Your task to perform on an android device: Go to network settings Image 0: 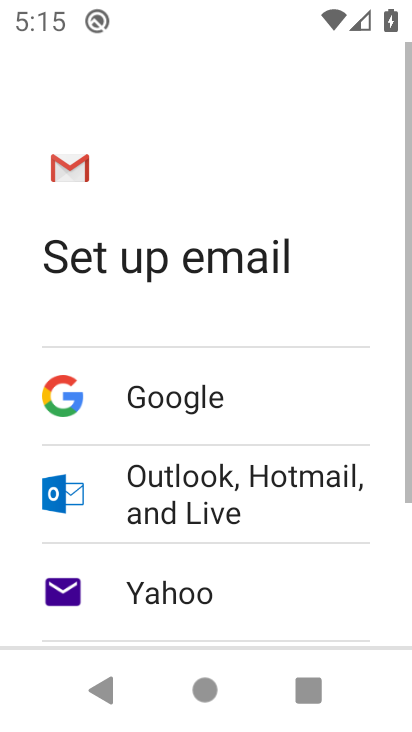
Step 0: press back button
Your task to perform on an android device: Go to network settings Image 1: 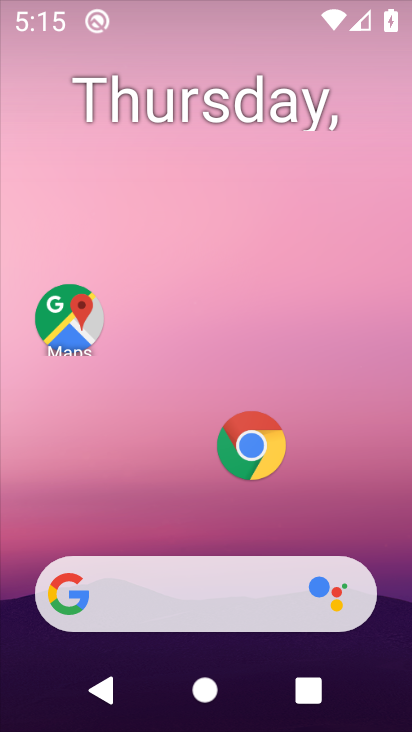
Step 1: drag from (273, 598) to (214, 148)
Your task to perform on an android device: Go to network settings Image 2: 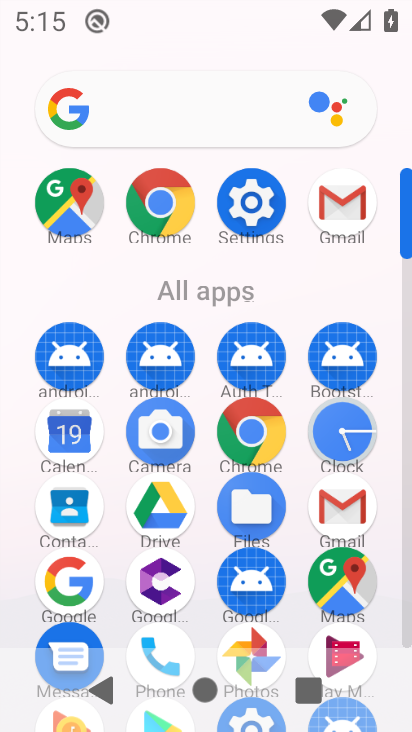
Step 2: click (249, 209)
Your task to perform on an android device: Go to network settings Image 3: 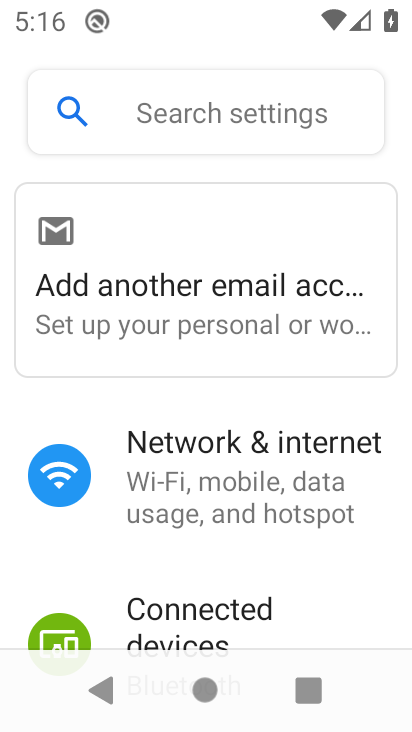
Step 3: click (224, 479)
Your task to perform on an android device: Go to network settings Image 4: 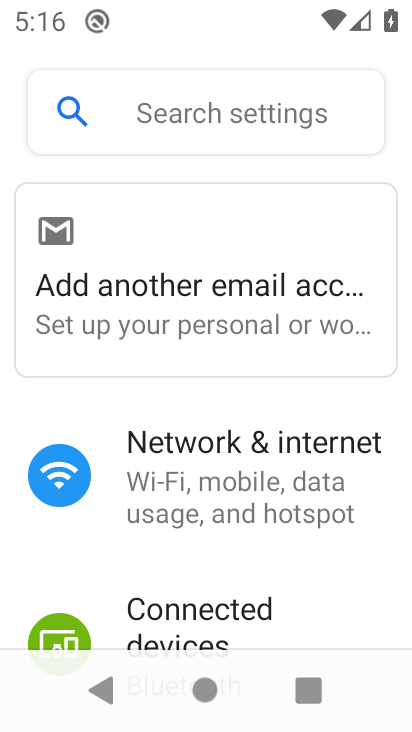
Step 4: click (229, 479)
Your task to perform on an android device: Go to network settings Image 5: 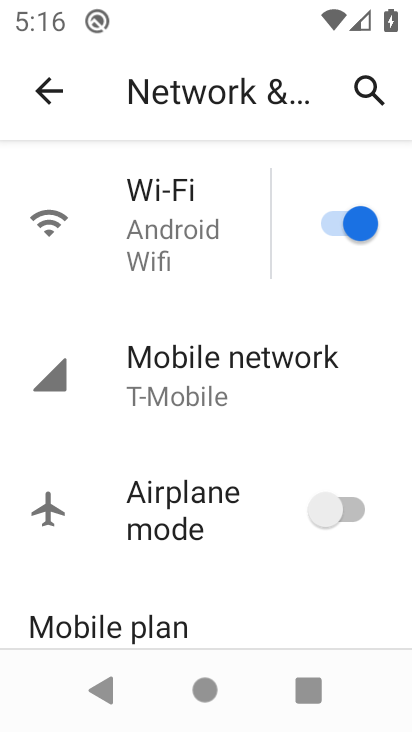
Step 5: task complete